Your task to perform on an android device: Open accessibility settings Image 0: 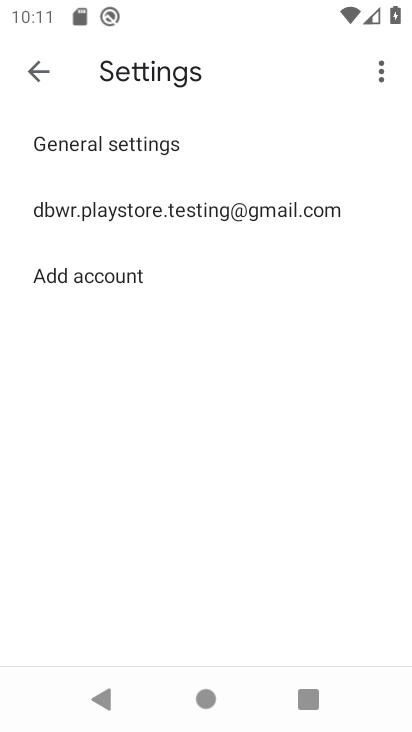
Step 0: press home button
Your task to perform on an android device: Open accessibility settings Image 1: 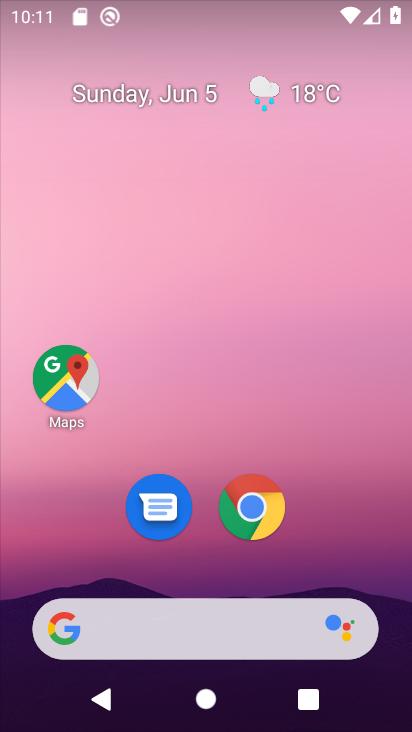
Step 1: drag from (221, 537) to (279, 42)
Your task to perform on an android device: Open accessibility settings Image 2: 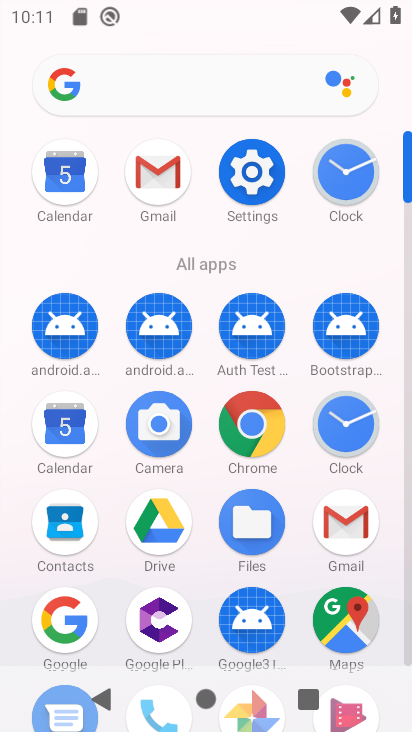
Step 2: click (257, 207)
Your task to perform on an android device: Open accessibility settings Image 3: 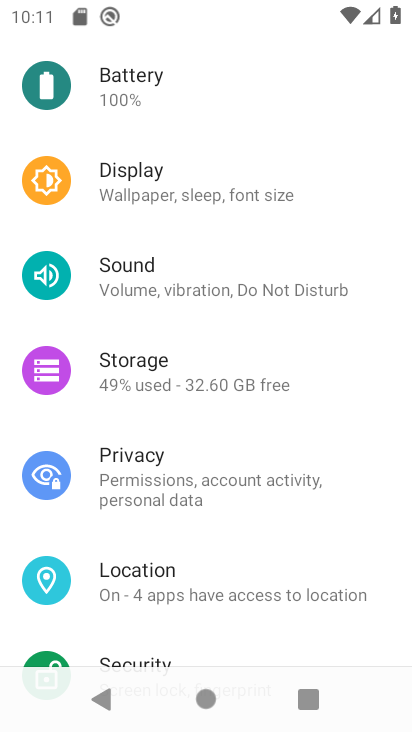
Step 3: drag from (189, 534) to (216, 358)
Your task to perform on an android device: Open accessibility settings Image 4: 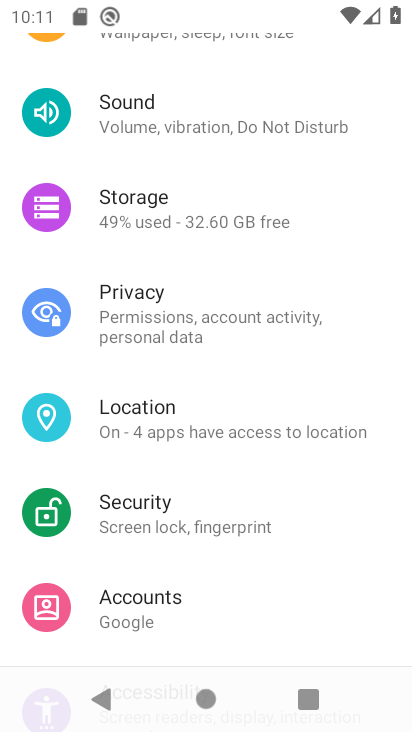
Step 4: drag from (174, 553) to (294, 33)
Your task to perform on an android device: Open accessibility settings Image 5: 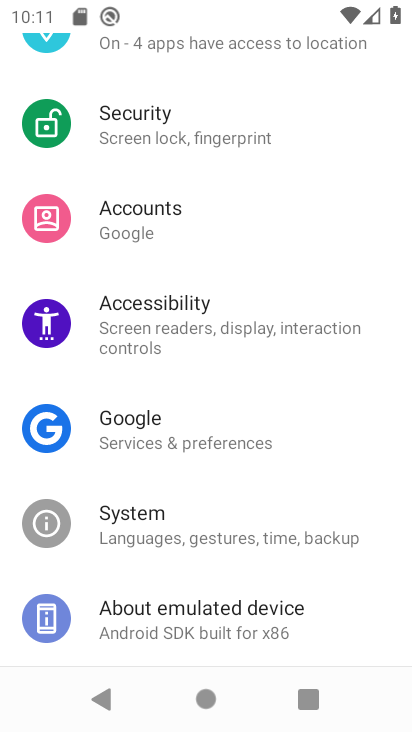
Step 5: click (189, 345)
Your task to perform on an android device: Open accessibility settings Image 6: 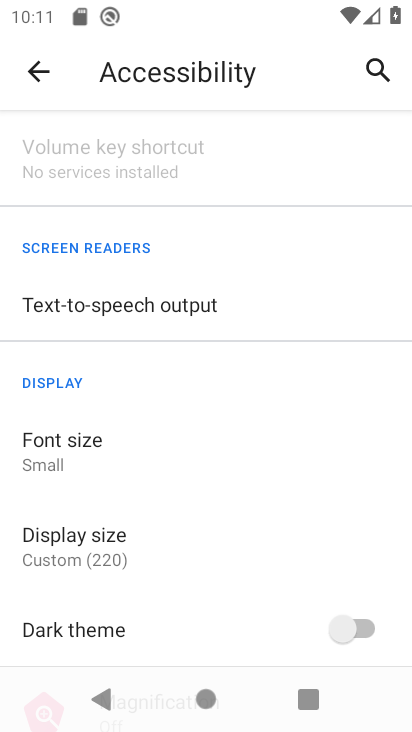
Step 6: task complete